Your task to perform on an android device: Go to Yahoo.com Image 0: 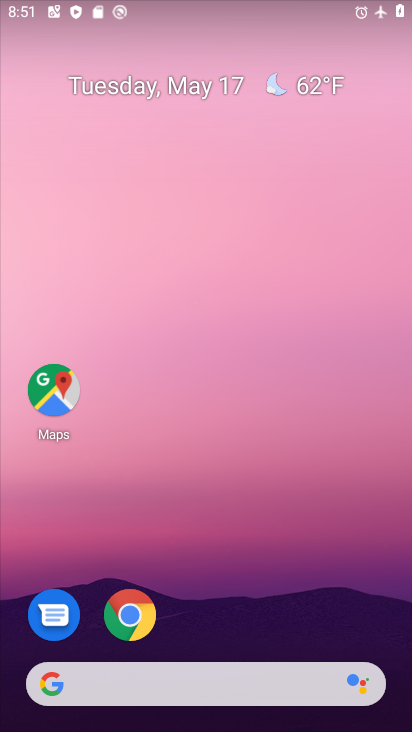
Step 0: click (141, 620)
Your task to perform on an android device: Go to Yahoo.com Image 1: 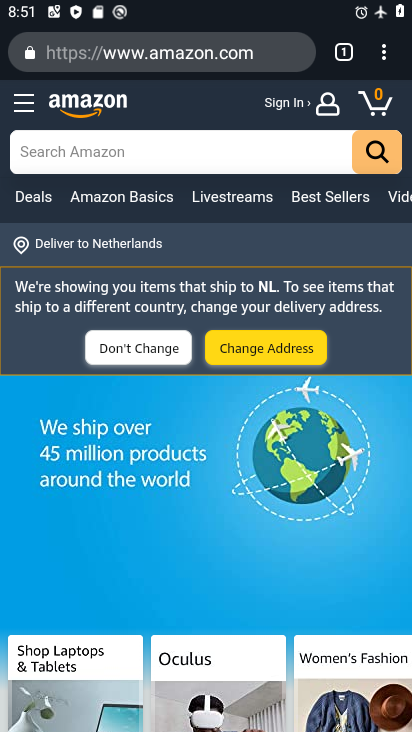
Step 1: click (342, 46)
Your task to perform on an android device: Go to Yahoo.com Image 2: 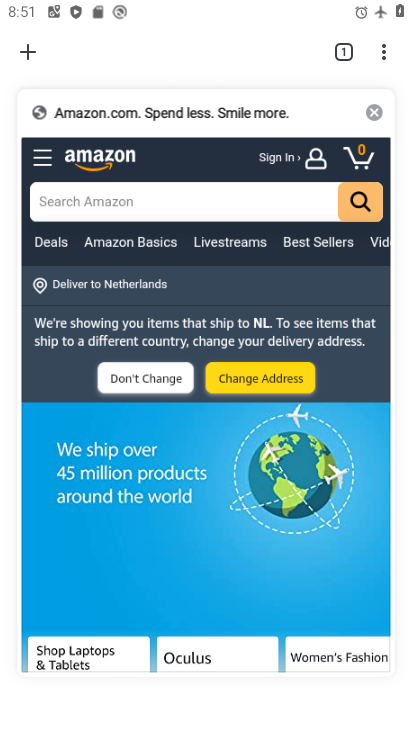
Step 2: click (374, 109)
Your task to perform on an android device: Go to Yahoo.com Image 3: 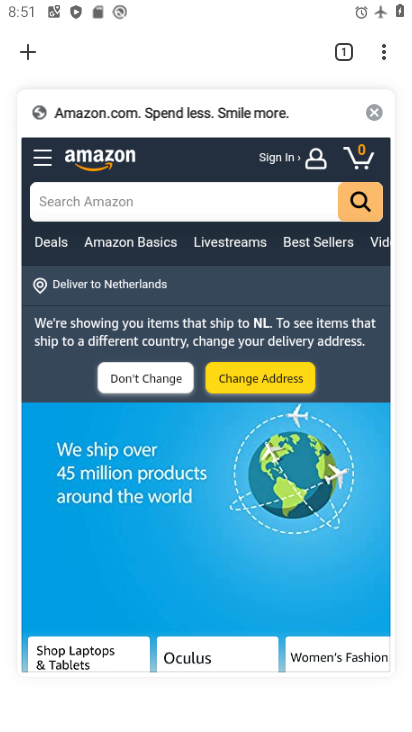
Step 3: drag from (381, 2) to (373, 451)
Your task to perform on an android device: Go to Yahoo.com Image 4: 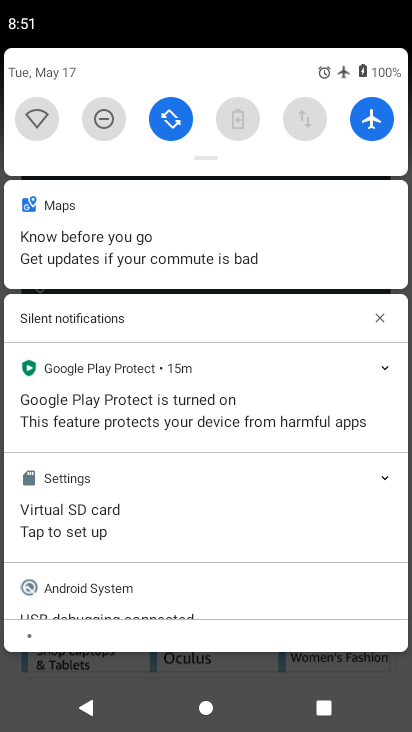
Step 4: click (372, 113)
Your task to perform on an android device: Go to Yahoo.com Image 5: 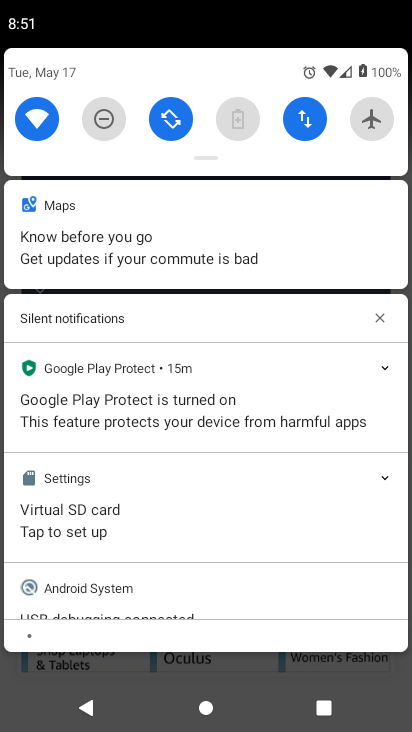
Step 5: drag from (227, 658) to (221, 339)
Your task to perform on an android device: Go to Yahoo.com Image 6: 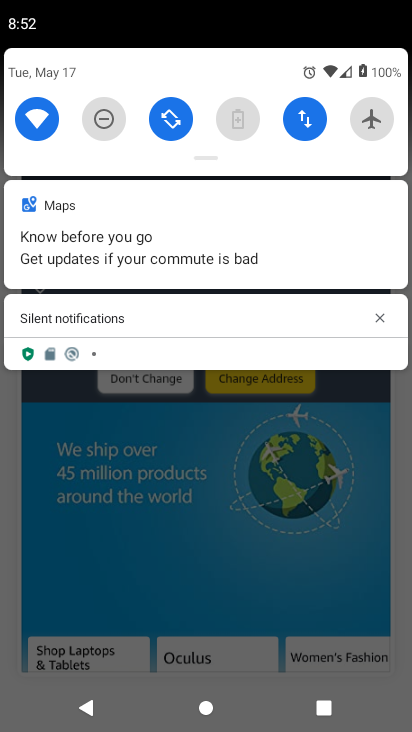
Step 6: drag from (227, 278) to (264, 142)
Your task to perform on an android device: Go to Yahoo.com Image 7: 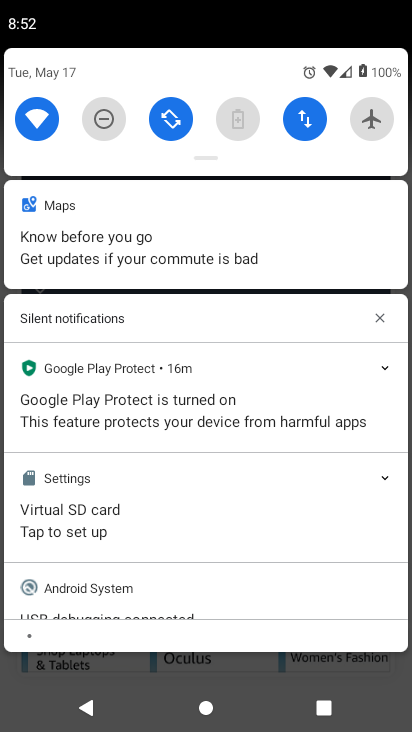
Step 7: drag from (277, 672) to (325, 64)
Your task to perform on an android device: Go to Yahoo.com Image 8: 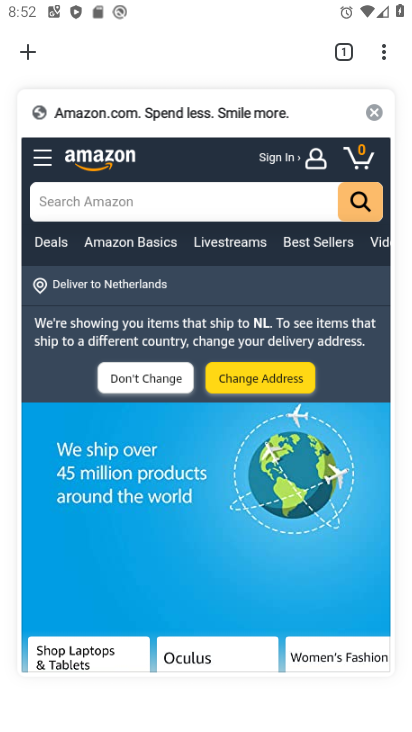
Step 8: click (380, 116)
Your task to perform on an android device: Go to Yahoo.com Image 9: 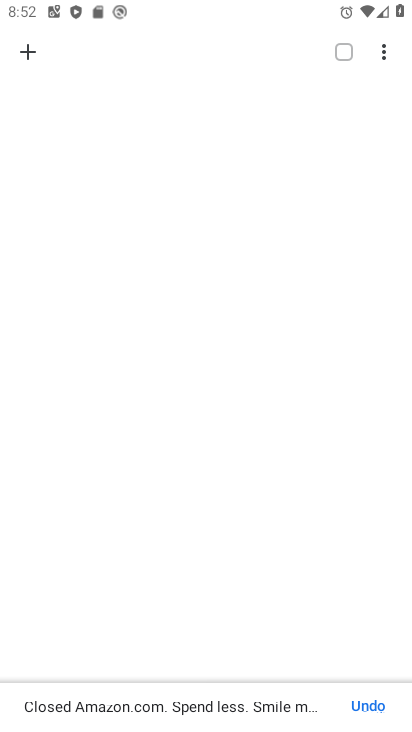
Step 9: click (23, 59)
Your task to perform on an android device: Go to Yahoo.com Image 10: 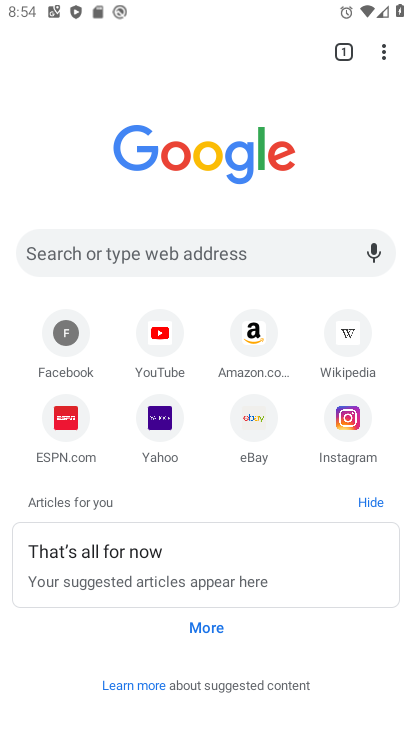
Step 10: click (161, 439)
Your task to perform on an android device: Go to Yahoo.com Image 11: 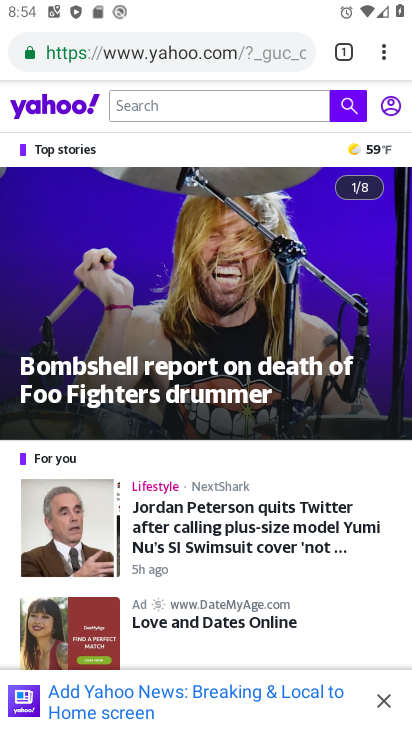
Step 11: task complete